Your task to perform on an android device: Open Google Image 0: 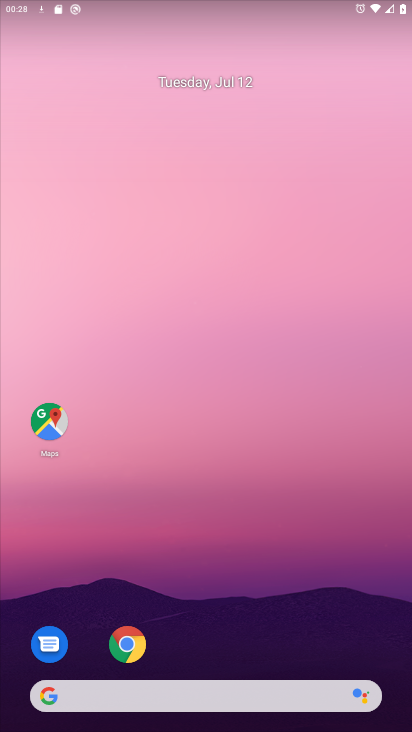
Step 0: drag from (193, 653) to (223, 296)
Your task to perform on an android device: Open Google Image 1: 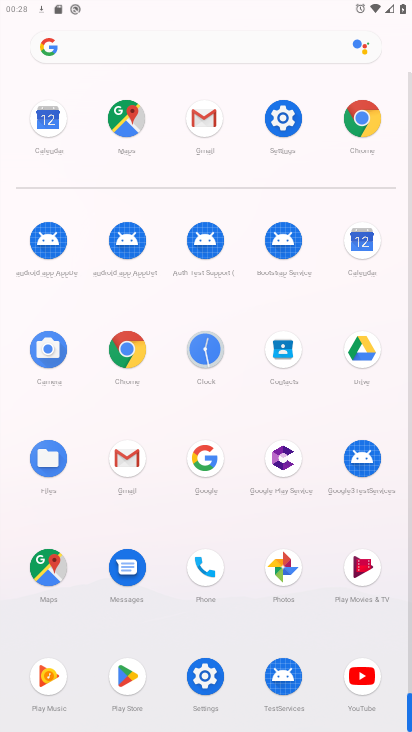
Step 1: click (201, 460)
Your task to perform on an android device: Open Google Image 2: 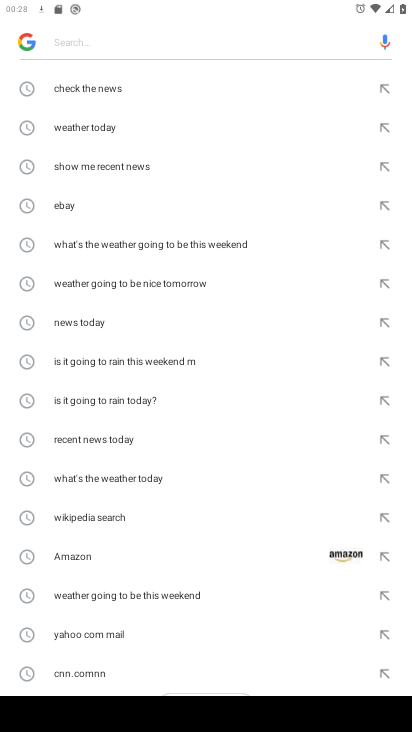
Step 2: task complete